Your task to perform on an android device: toggle sleep mode Image 0: 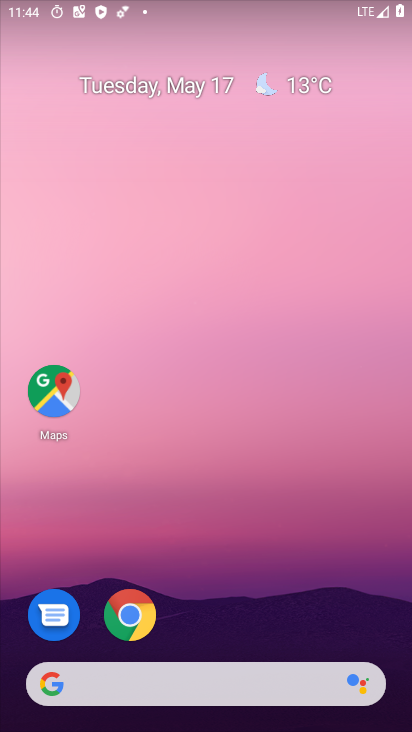
Step 0: press home button
Your task to perform on an android device: toggle sleep mode Image 1: 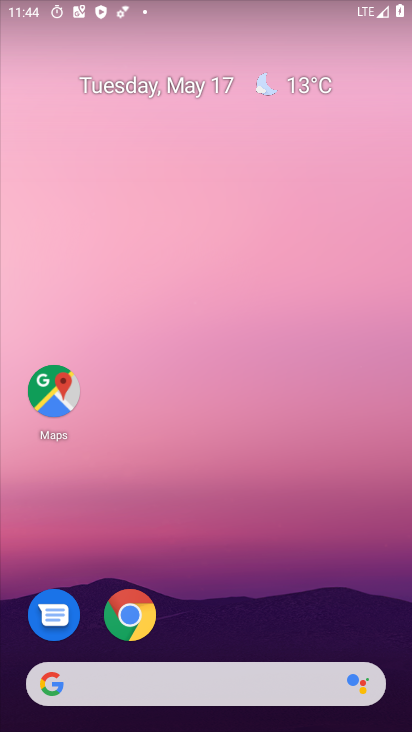
Step 1: drag from (178, 688) to (241, 156)
Your task to perform on an android device: toggle sleep mode Image 2: 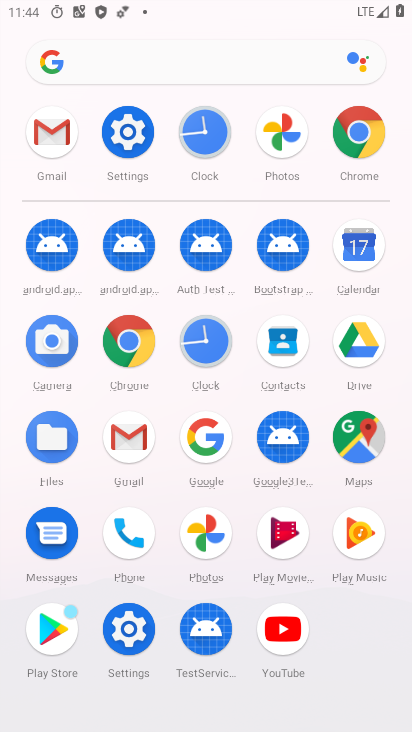
Step 2: click (133, 132)
Your task to perform on an android device: toggle sleep mode Image 3: 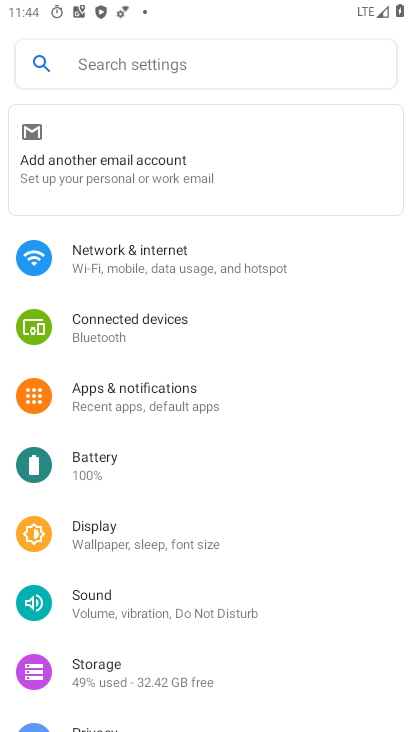
Step 3: click (154, 543)
Your task to perform on an android device: toggle sleep mode Image 4: 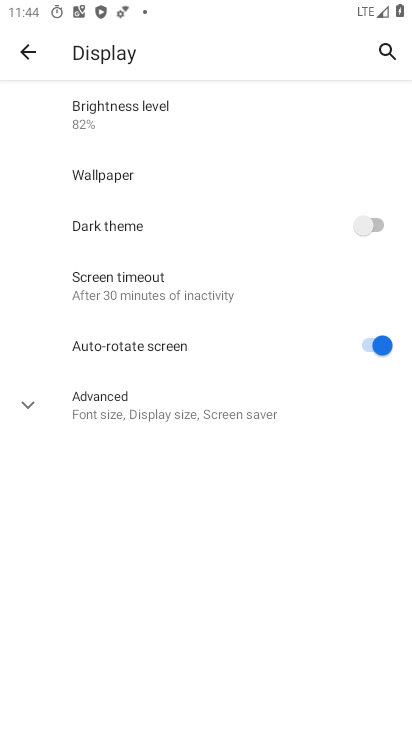
Step 4: click (103, 403)
Your task to perform on an android device: toggle sleep mode Image 5: 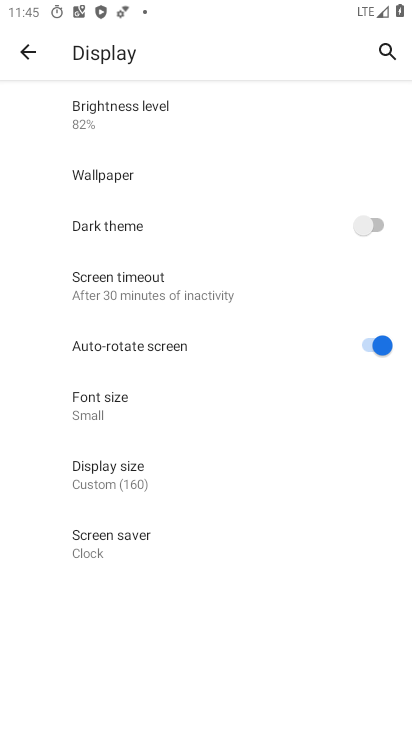
Step 5: task complete